Your task to perform on an android device: Go to Yahoo.com Image 0: 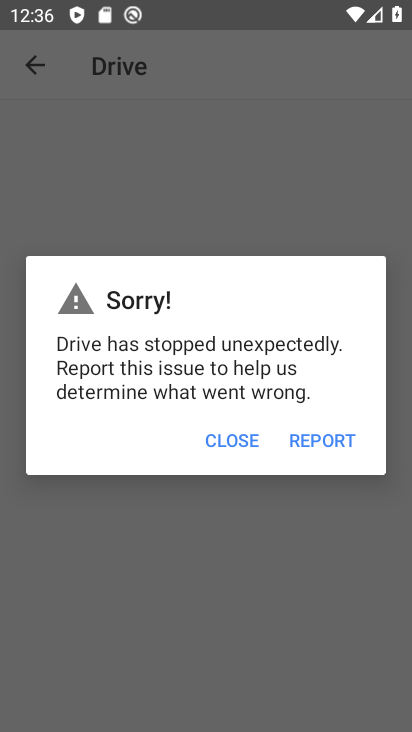
Step 0: click (227, 435)
Your task to perform on an android device: Go to Yahoo.com Image 1: 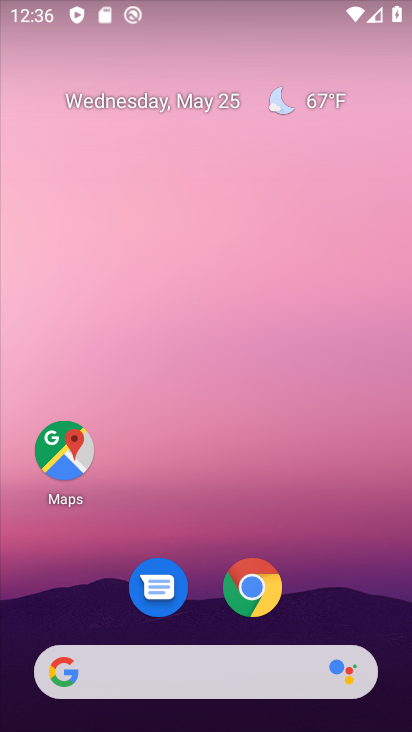
Step 1: click (252, 591)
Your task to perform on an android device: Go to Yahoo.com Image 2: 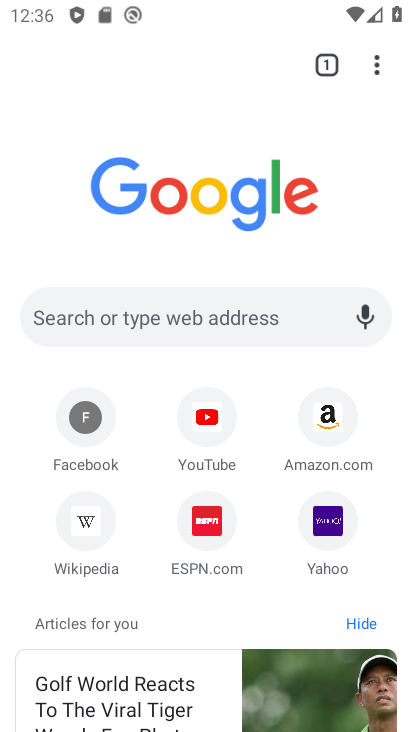
Step 2: click (326, 517)
Your task to perform on an android device: Go to Yahoo.com Image 3: 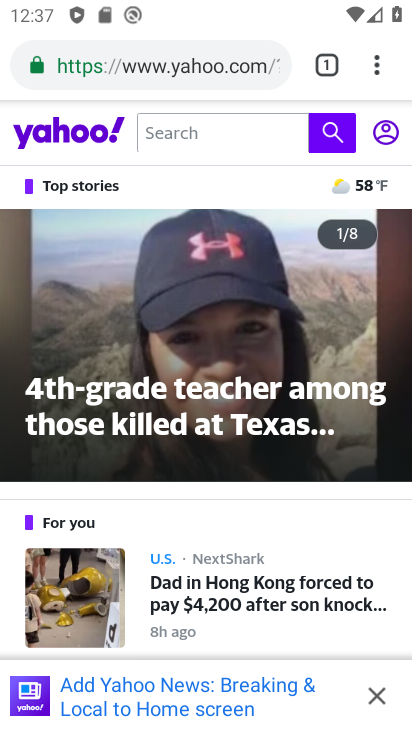
Step 3: task complete